Your task to perform on an android device: What's the weather today? Image 0: 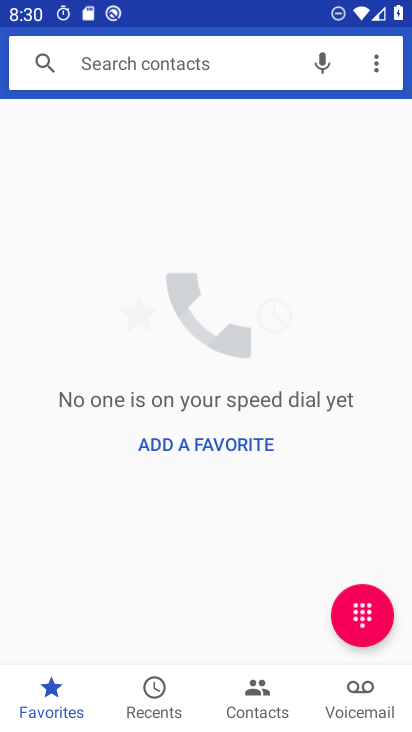
Step 0: press home button
Your task to perform on an android device: What's the weather today? Image 1: 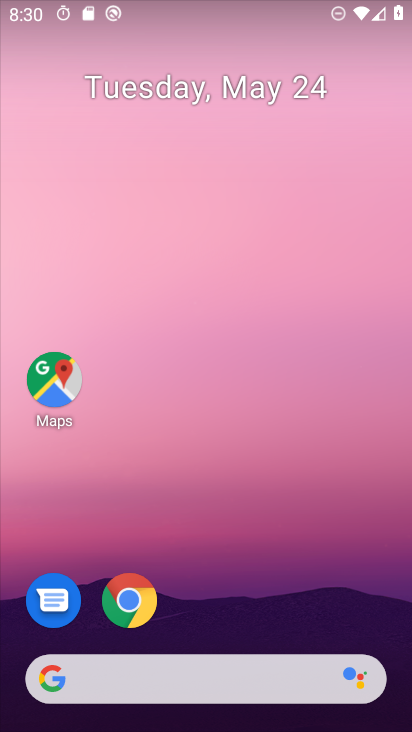
Step 1: click (152, 658)
Your task to perform on an android device: What's the weather today? Image 2: 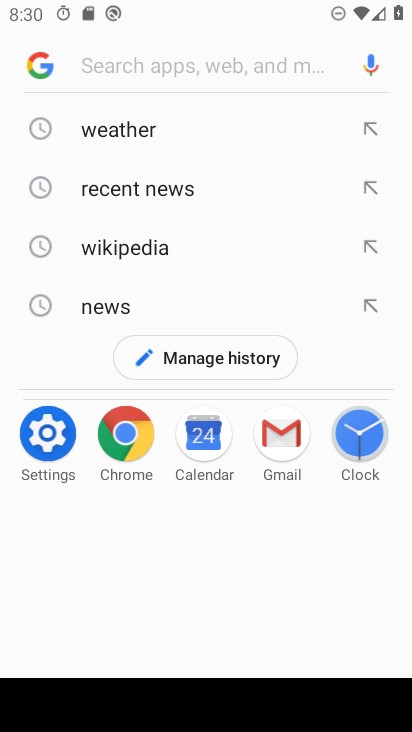
Step 2: click (119, 131)
Your task to perform on an android device: What's the weather today? Image 3: 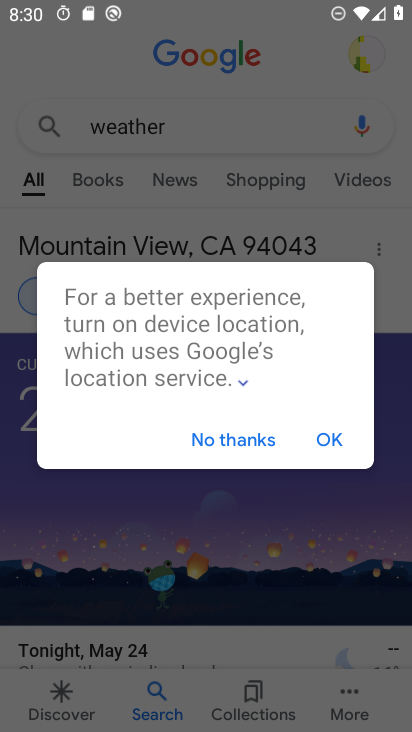
Step 3: click (236, 432)
Your task to perform on an android device: What's the weather today? Image 4: 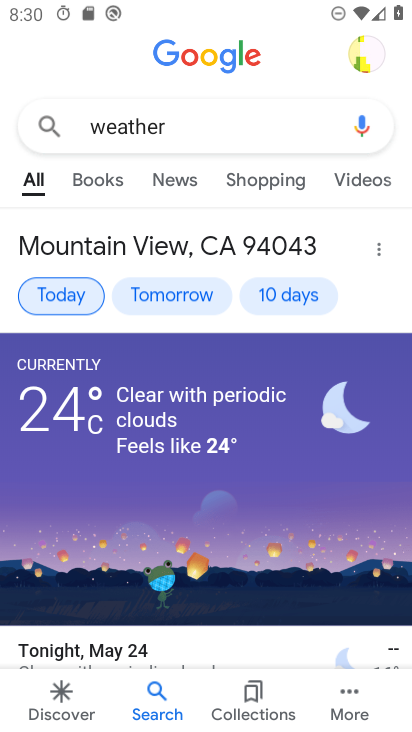
Step 4: task complete